Your task to perform on an android device: Toggle the flashlight Image 0: 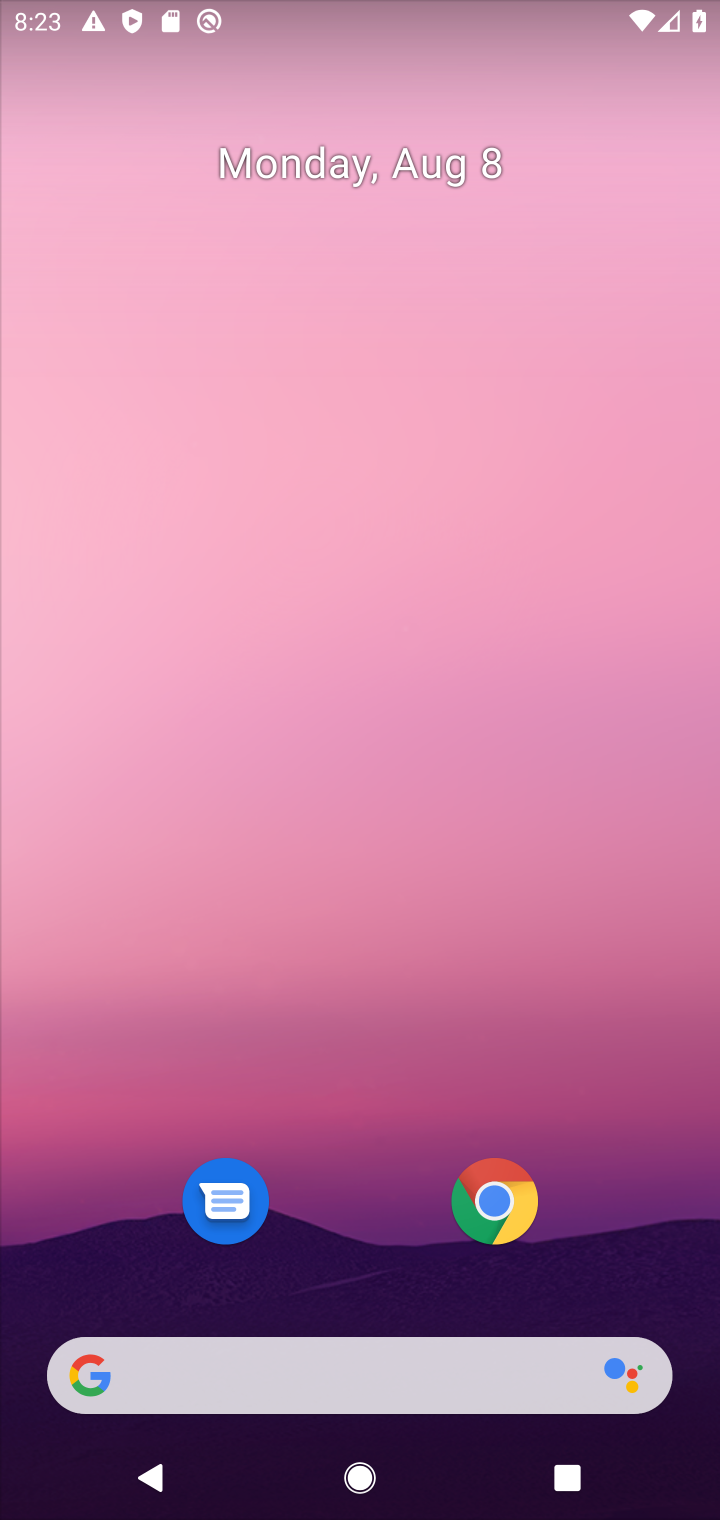
Step 0: drag from (333, 16) to (373, 976)
Your task to perform on an android device: Toggle the flashlight Image 1: 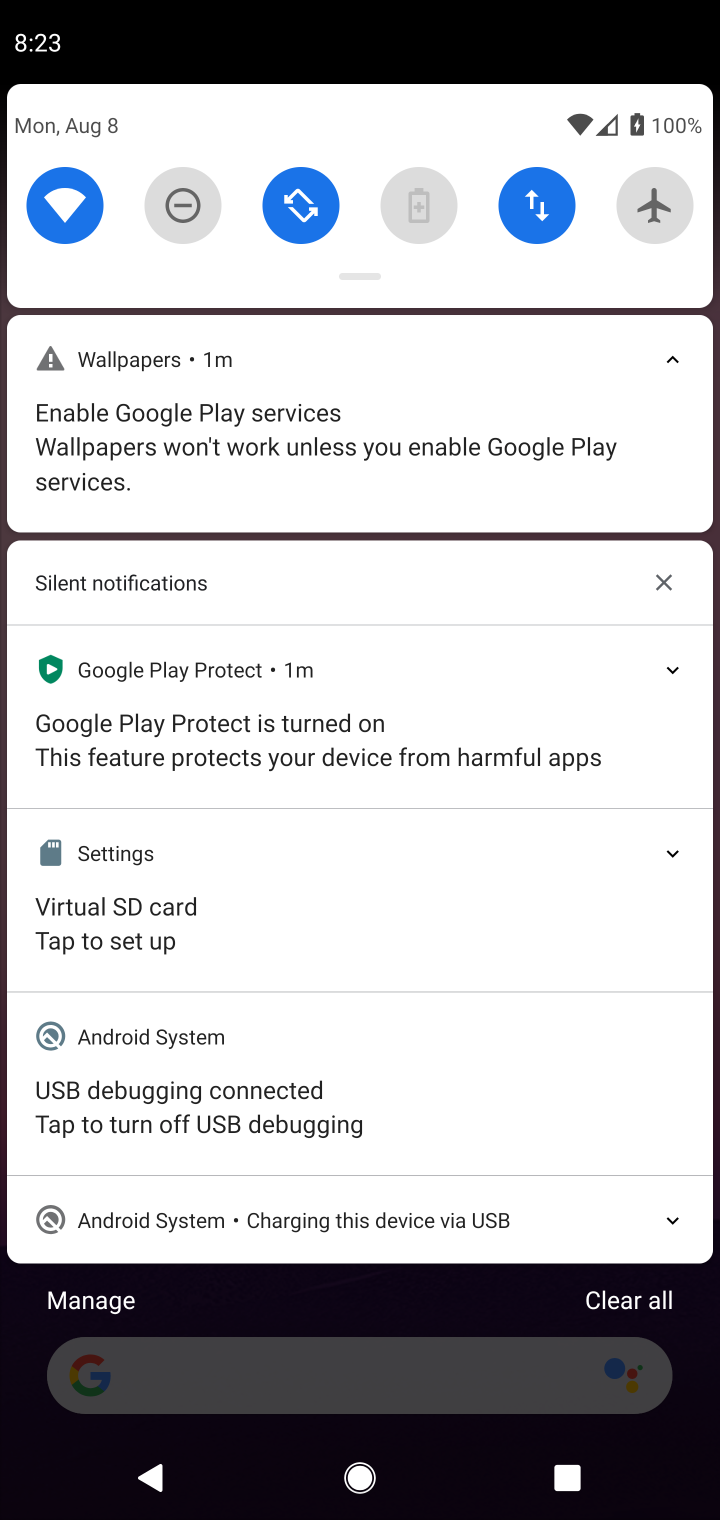
Step 1: drag from (361, 134) to (432, 760)
Your task to perform on an android device: Toggle the flashlight Image 2: 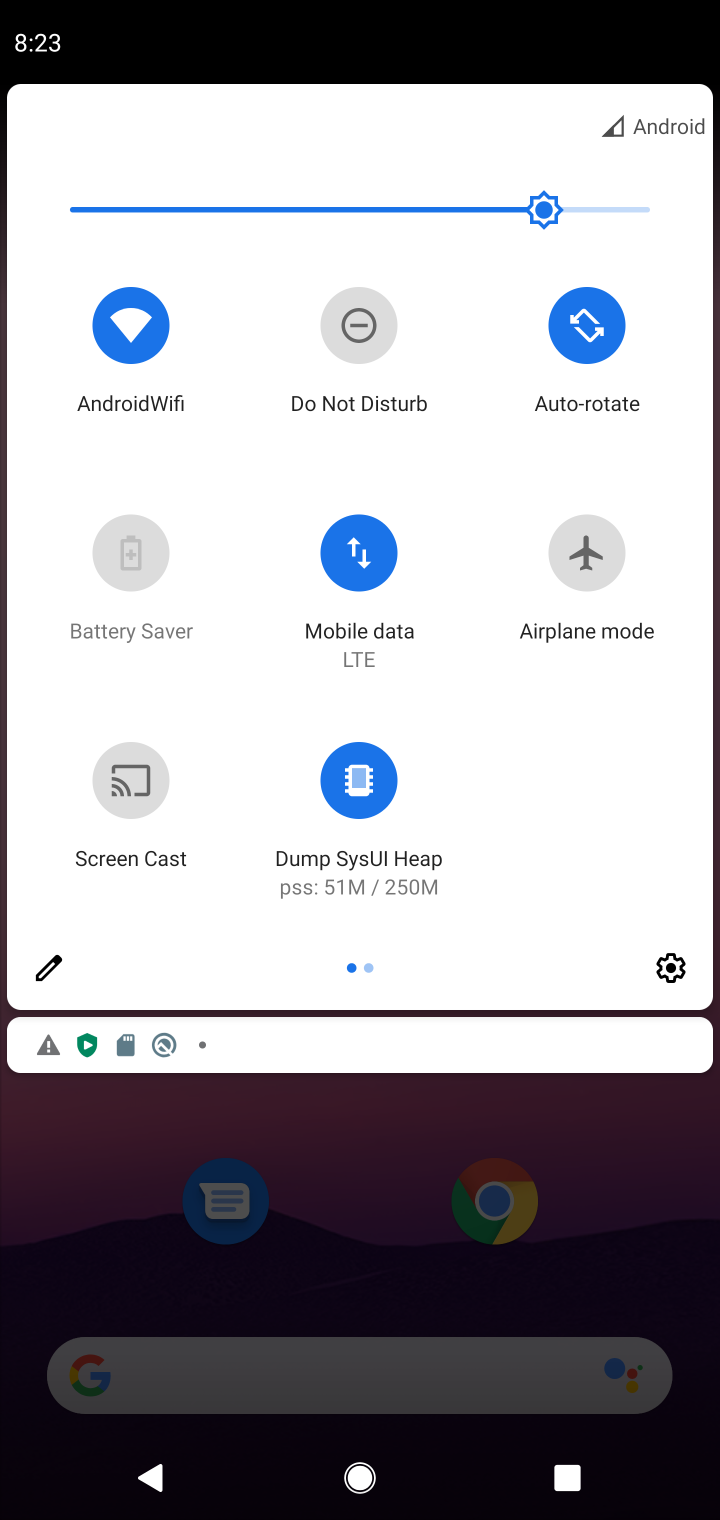
Step 2: click (51, 960)
Your task to perform on an android device: Toggle the flashlight Image 3: 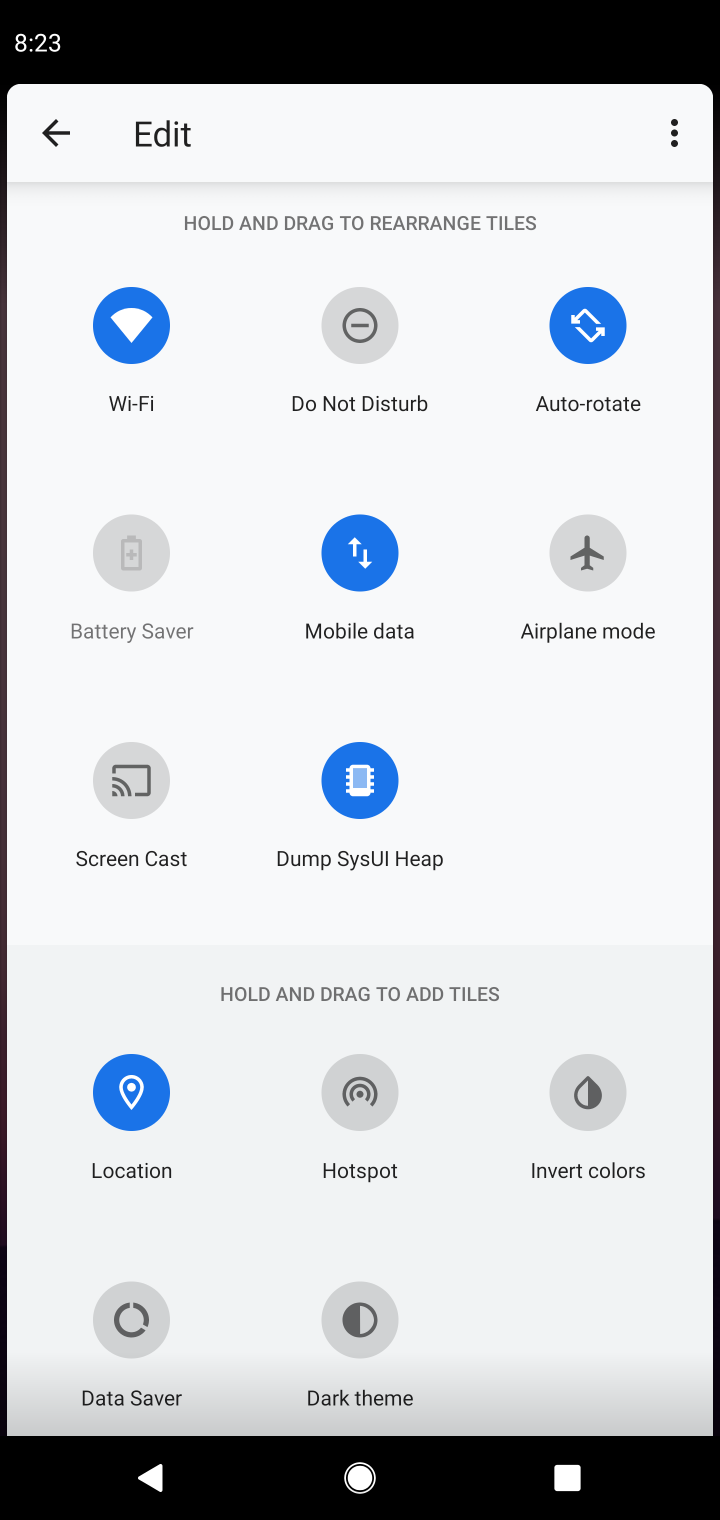
Step 3: task complete